Your task to perform on an android device: Search for seafood restaurants on Google Maps Image 0: 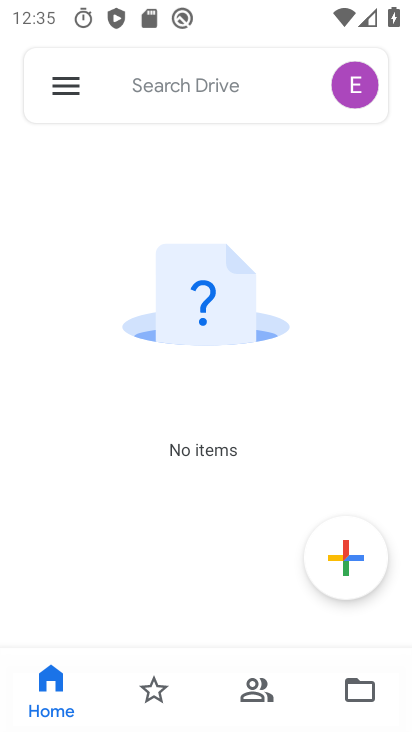
Step 0: press back button
Your task to perform on an android device: Search for seafood restaurants on Google Maps Image 1: 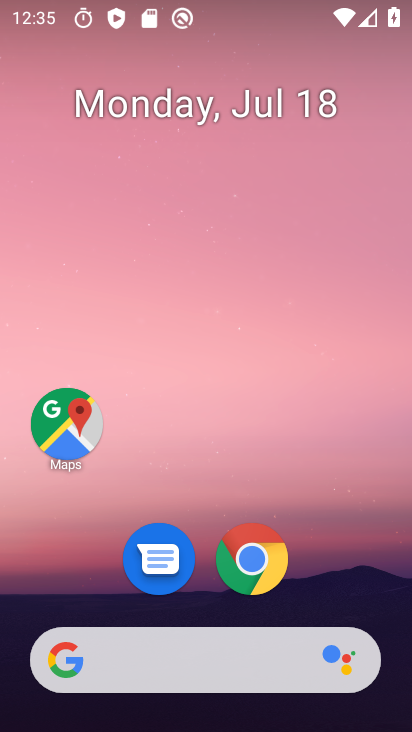
Step 1: click (64, 403)
Your task to perform on an android device: Search for seafood restaurants on Google Maps Image 2: 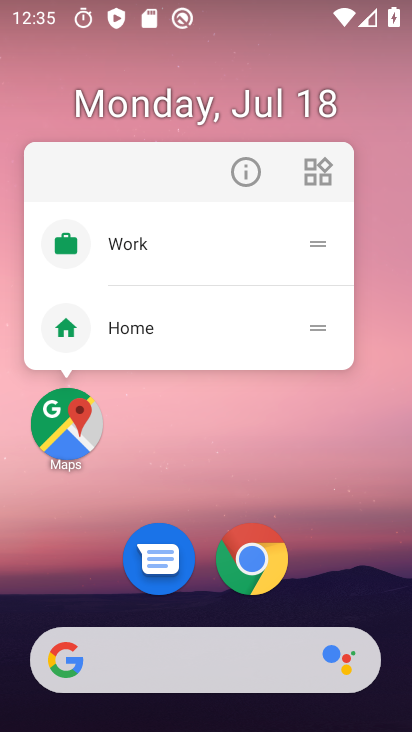
Step 2: click (62, 394)
Your task to perform on an android device: Search for seafood restaurants on Google Maps Image 3: 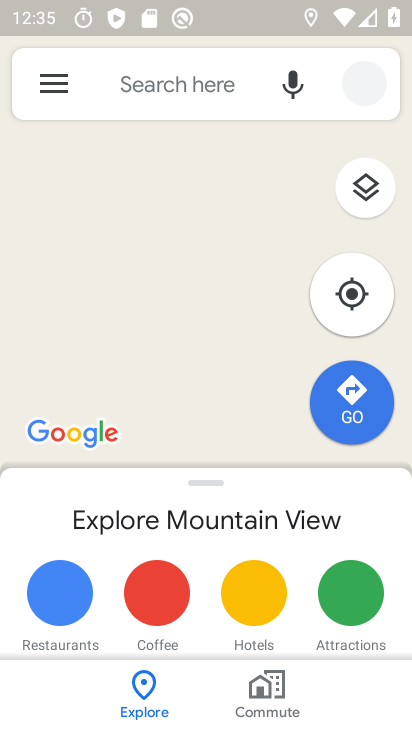
Step 3: click (158, 93)
Your task to perform on an android device: Search for seafood restaurants on Google Maps Image 4: 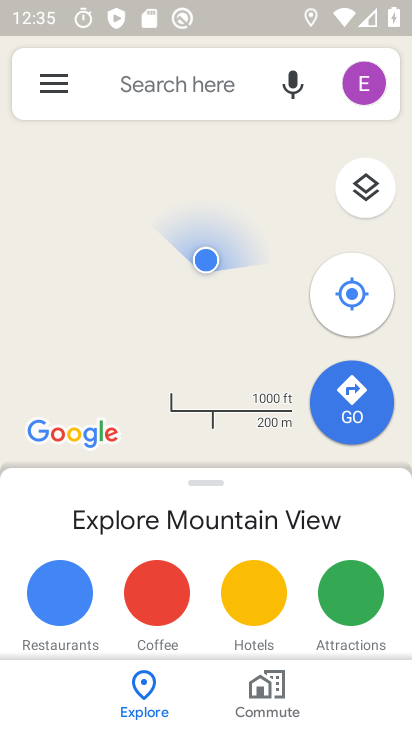
Step 4: click (158, 93)
Your task to perform on an android device: Search for seafood restaurants on Google Maps Image 5: 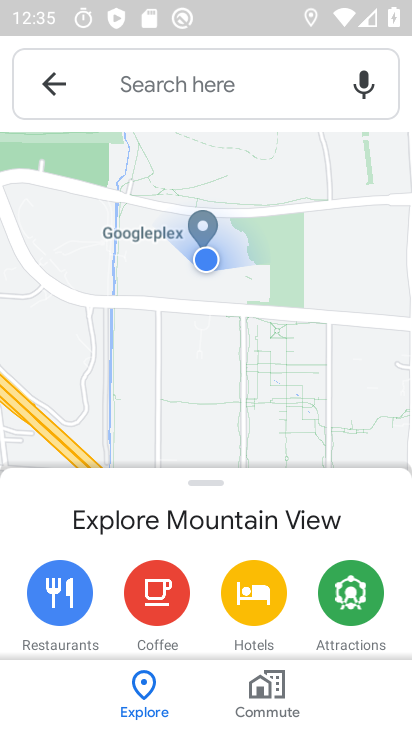
Step 5: click (171, 80)
Your task to perform on an android device: Search for seafood restaurants on Google Maps Image 6: 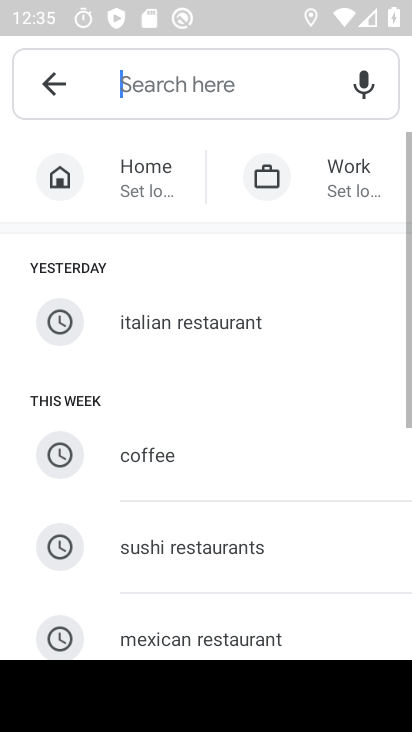
Step 6: drag from (215, 604) to (288, 126)
Your task to perform on an android device: Search for seafood restaurants on Google Maps Image 7: 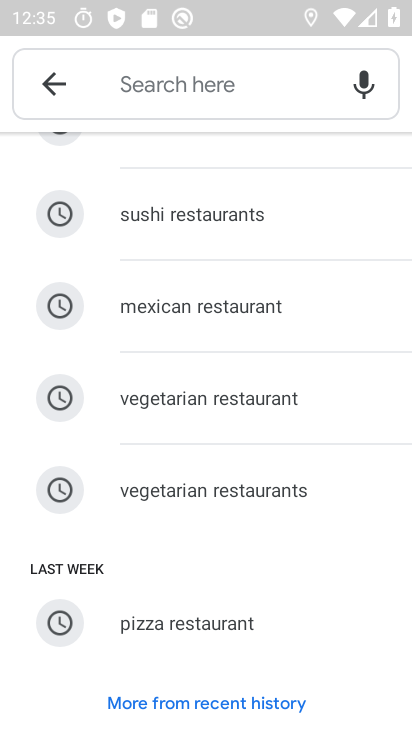
Step 7: drag from (173, 535) to (272, 713)
Your task to perform on an android device: Search for seafood restaurants on Google Maps Image 8: 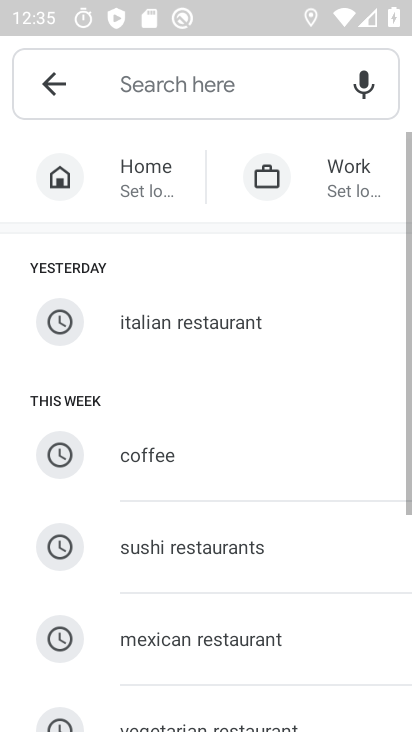
Step 8: click (127, 83)
Your task to perform on an android device: Search for seafood restaurants on Google Maps Image 9: 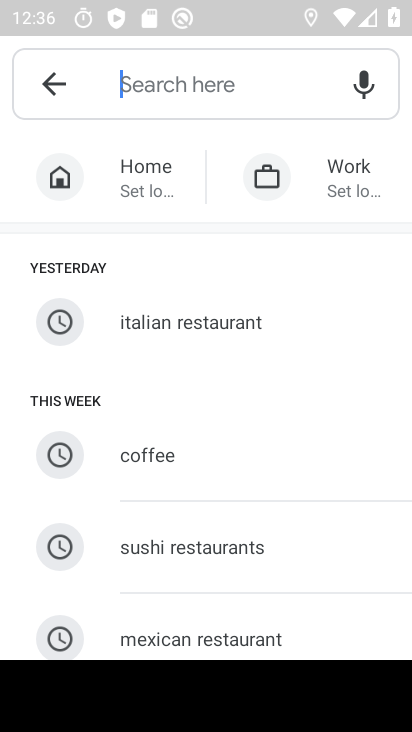
Step 9: type "seafood restauraants"
Your task to perform on an android device: Search for seafood restaurants on Google Maps Image 10: 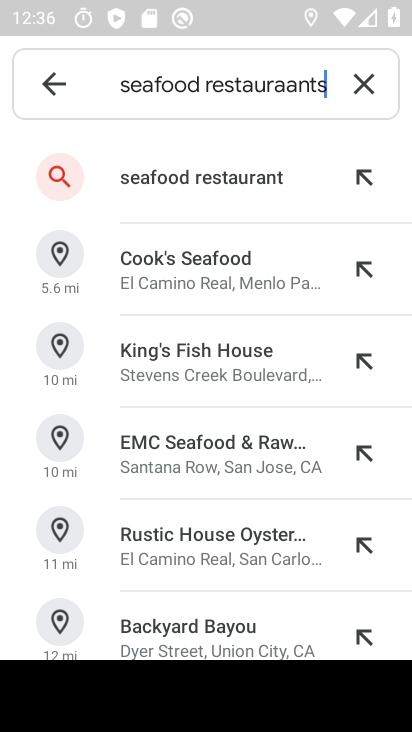
Step 10: click (240, 173)
Your task to perform on an android device: Search for seafood restaurants on Google Maps Image 11: 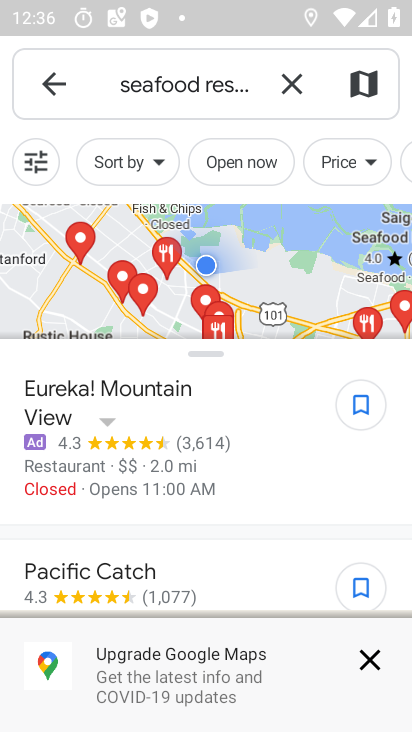
Step 11: task complete